Your task to perform on an android device: Open display settings Image 0: 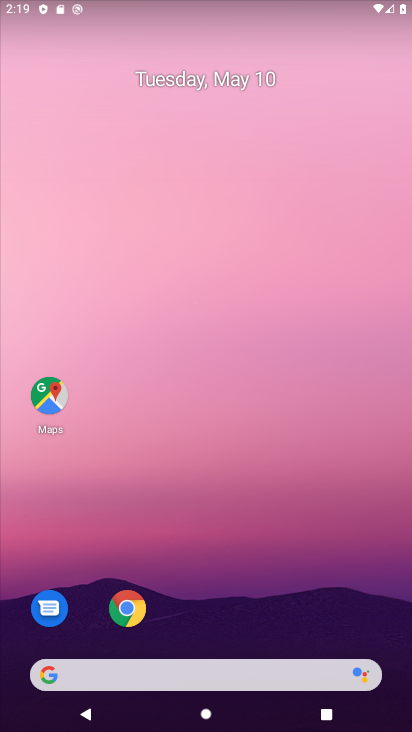
Step 0: drag from (392, 656) to (271, 125)
Your task to perform on an android device: Open display settings Image 1: 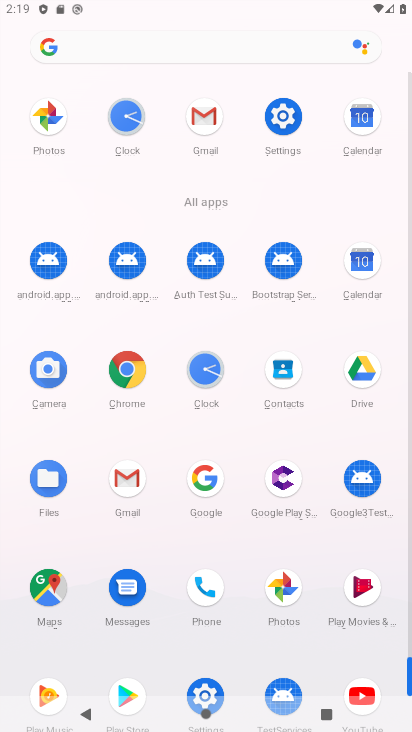
Step 1: click (410, 649)
Your task to perform on an android device: Open display settings Image 2: 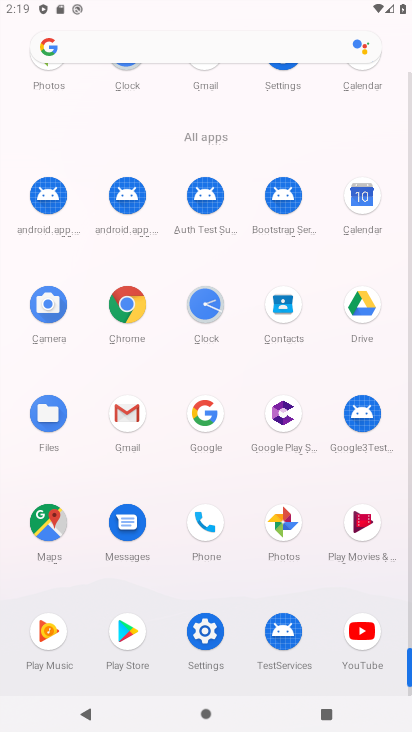
Step 2: click (206, 631)
Your task to perform on an android device: Open display settings Image 3: 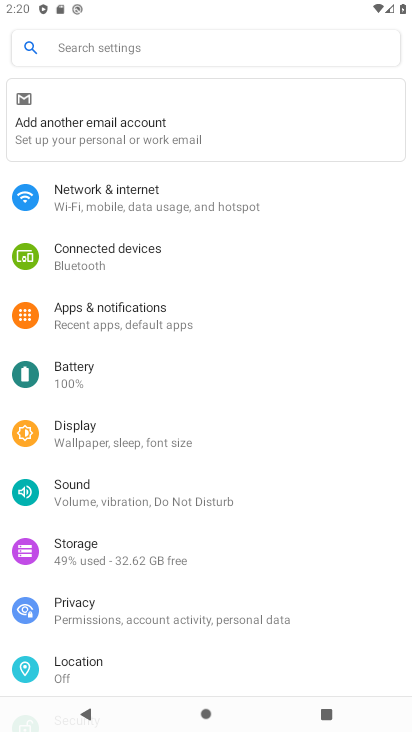
Step 3: click (84, 433)
Your task to perform on an android device: Open display settings Image 4: 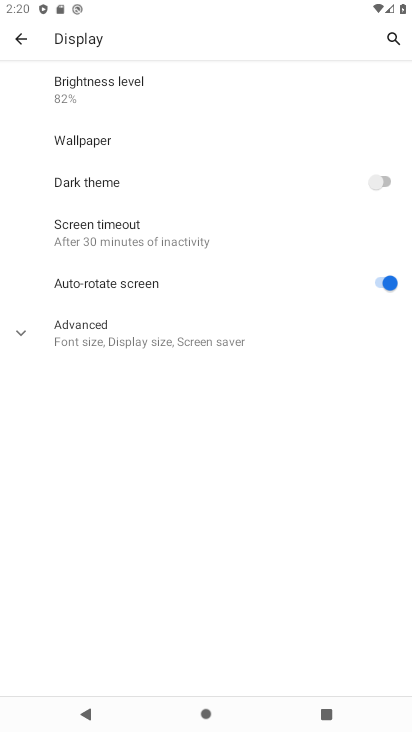
Step 4: click (17, 336)
Your task to perform on an android device: Open display settings Image 5: 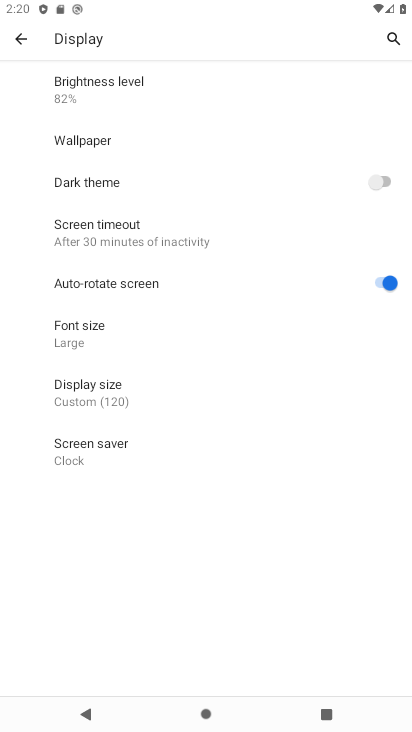
Step 5: task complete